Your task to perform on an android device: Go to Google maps Image 0: 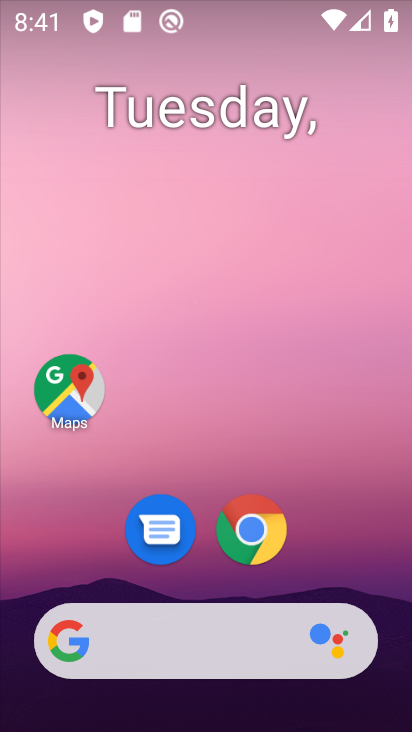
Step 0: drag from (352, 638) to (411, 253)
Your task to perform on an android device: Go to Google maps Image 1: 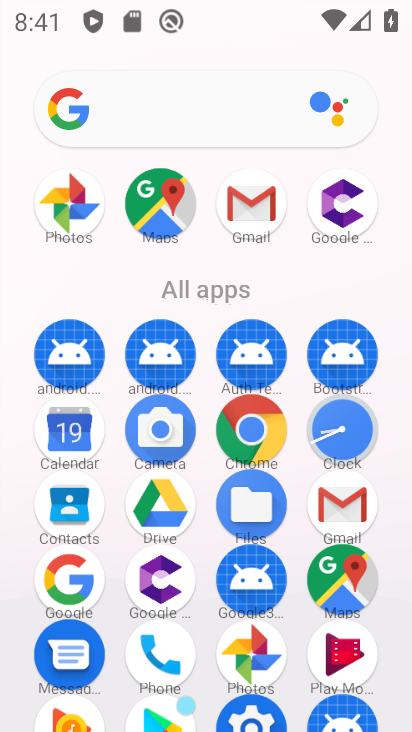
Step 1: drag from (194, 571) to (153, 165)
Your task to perform on an android device: Go to Google maps Image 2: 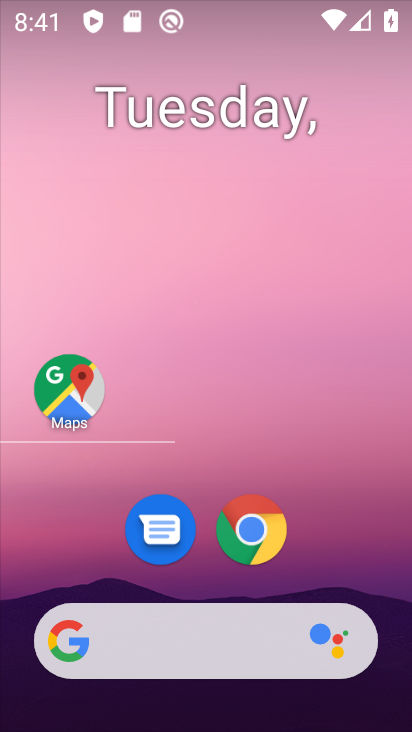
Step 2: click (329, 585)
Your task to perform on an android device: Go to Google maps Image 3: 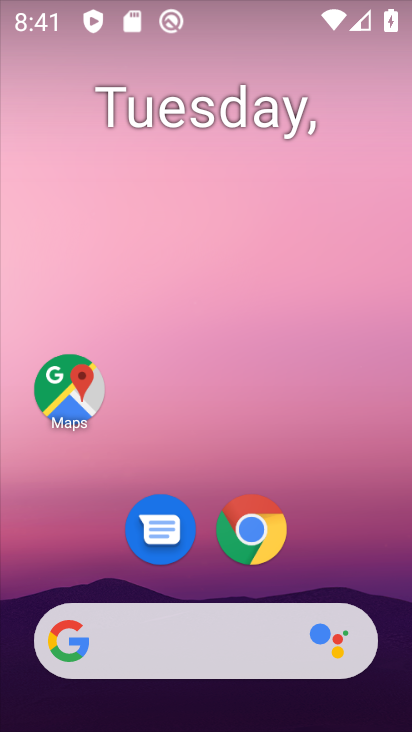
Step 3: drag from (329, 585) to (295, 81)
Your task to perform on an android device: Go to Google maps Image 4: 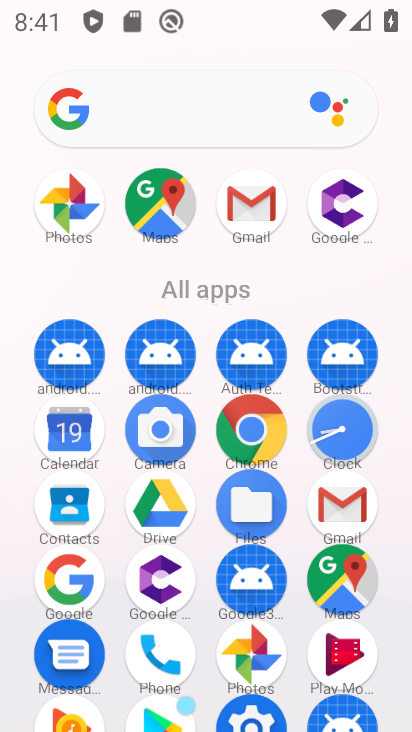
Step 4: click (345, 580)
Your task to perform on an android device: Go to Google maps Image 5: 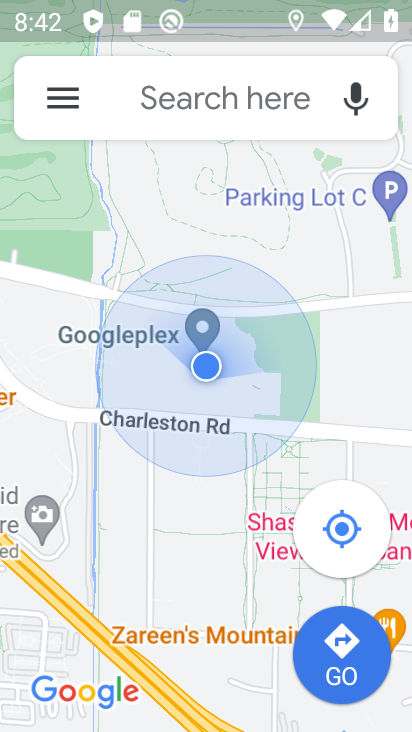
Step 5: press home button
Your task to perform on an android device: Go to Google maps Image 6: 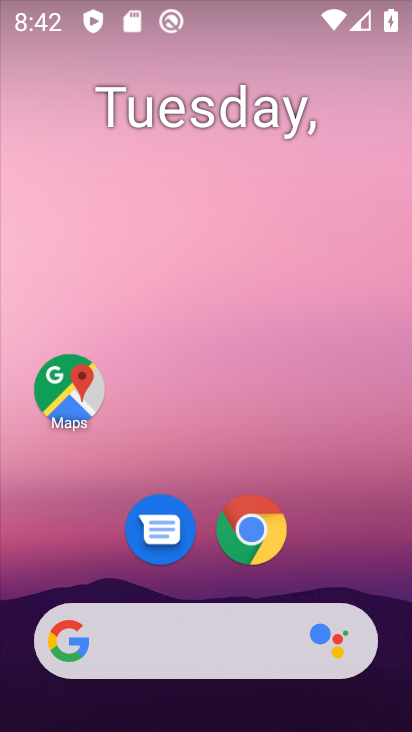
Step 6: drag from (364, 520) to (307, 0)
Your task to perform on an android device: Go to Google maps Image 7: 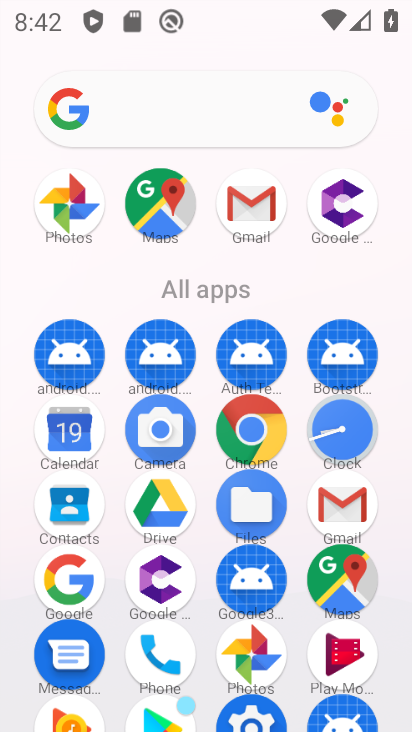
Step 7: click (358, 589)
Your task to perform on an android device: Go to Google maps Image 8: 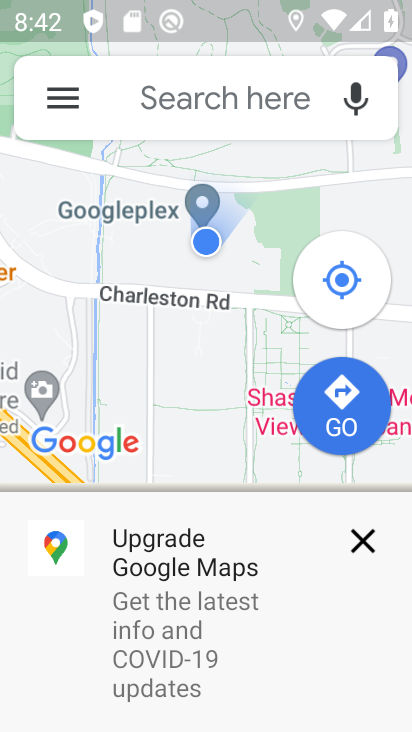
Step 8: click (371, 534)
Your task to perform on an android device: Go to Google maps Image 9: 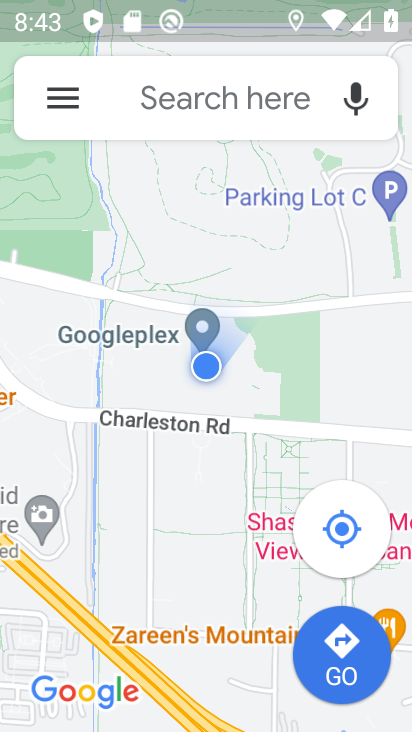
Step 9: task complete